Your task to perform on an android device: delete the emails in spam in the gmail app Image 0: 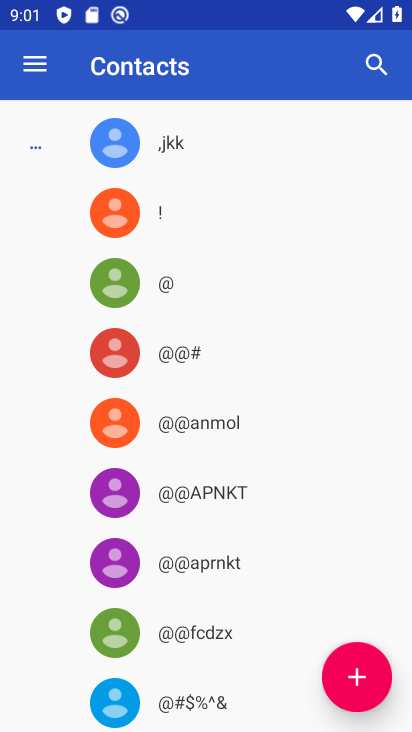
Step 0: press home button
Your task to perform on an android device: delete the emails in spam in the gmail app Image 1: 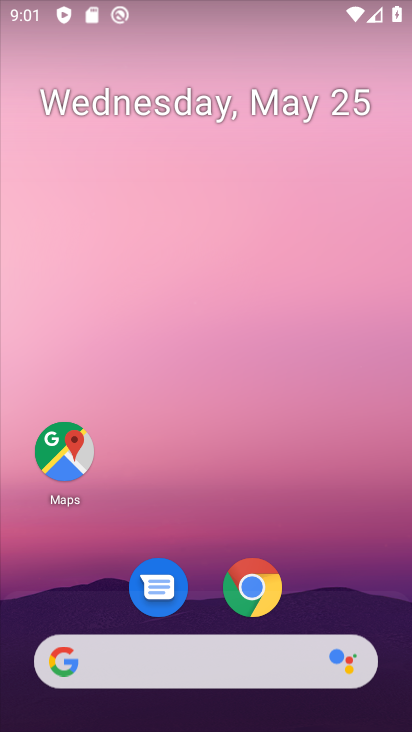
Step 1: drag from (198, 608) to (202, 234)
Your task to perform on an android device: delete the emails in spam in the gmail app Image 2: 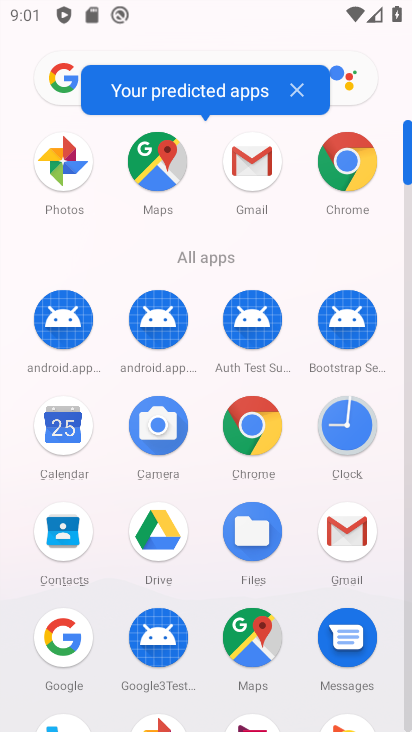
Step 2: click (355, 529)
Your task to perform on an android device: delete the emails in spam in the gmail app Image 3: 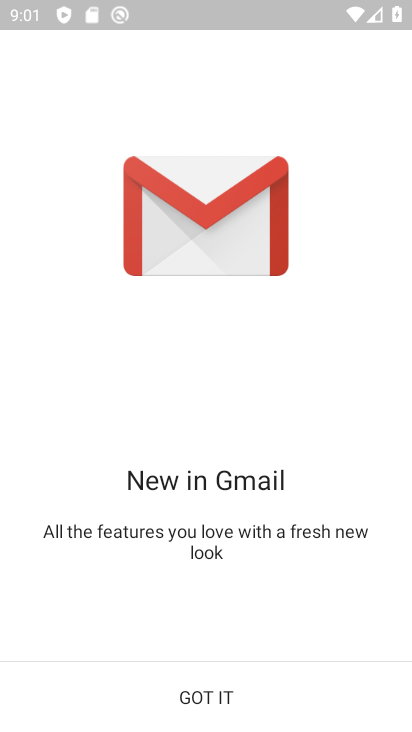
Step 3: click (235, 691)
Your task to perform on an android device: delete the emails in spam in the gmail app Image 4: 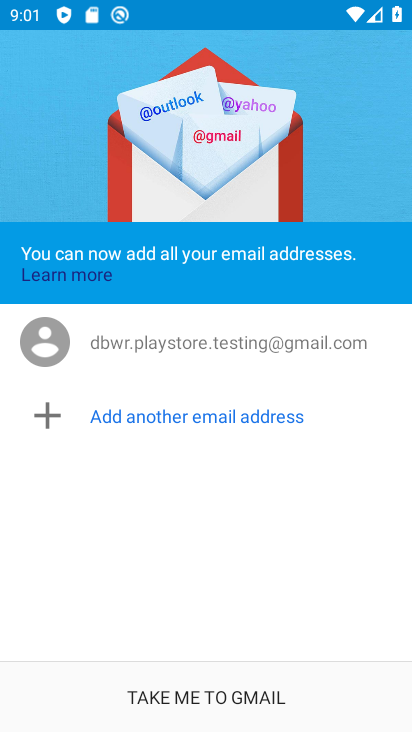
Step 4: click (264, 697)
Your task to perform on an android device: delete the emails in spam in the gmail app Image 5: 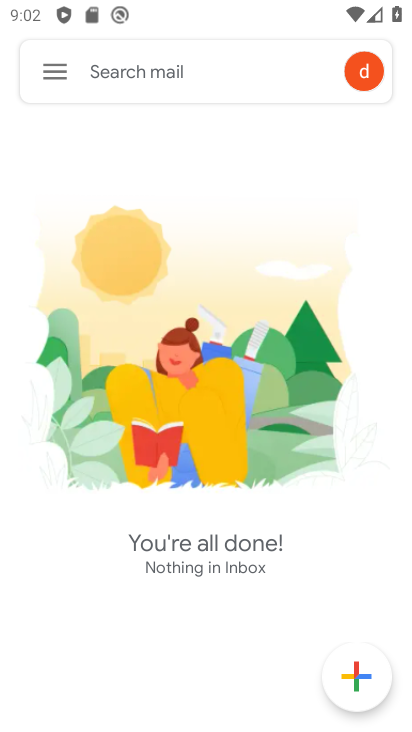
Step 5: click (73, 68)
Your task to perform on an android device: delete the emails in spam in the gmail app Image 6: 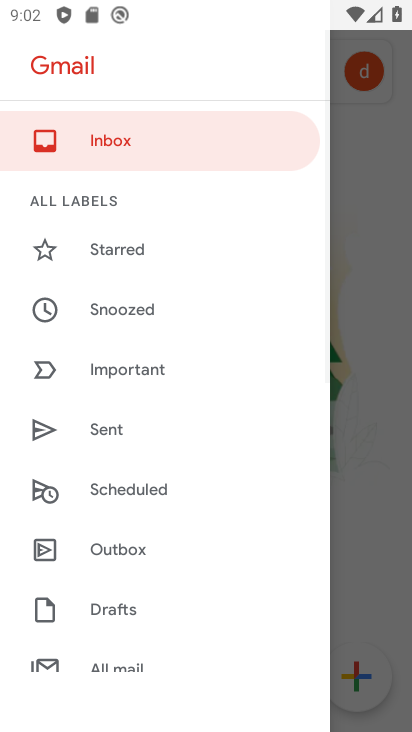
Step 6: drag from (153, 569) to (225, 334)
Your task to perform on an android device: delete the emails in spam in the gmail app Image 7: 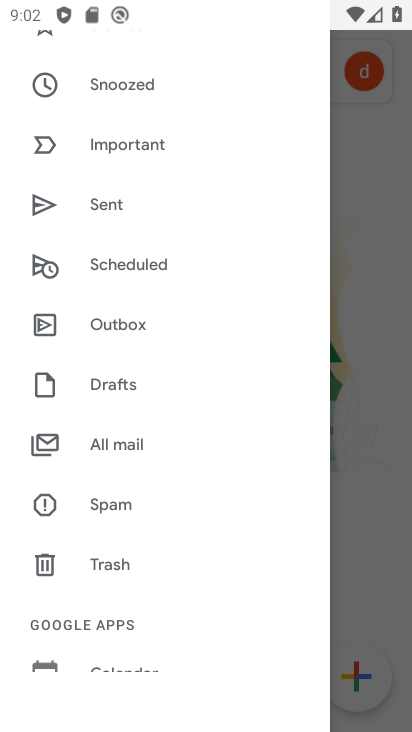
Step 7: click (131, 497)
Your task to perform on an android device: delete the emails in spam in the gmail app Image 8: 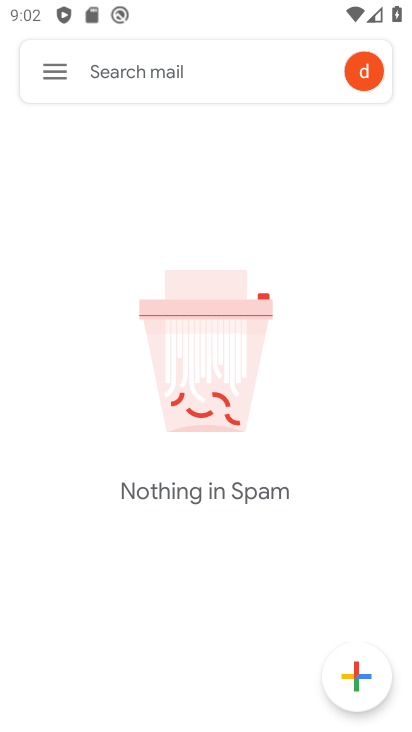
Step 8: task complete